Your task to perform on an android device: turn off priority inbox in the gmail app Image 0: 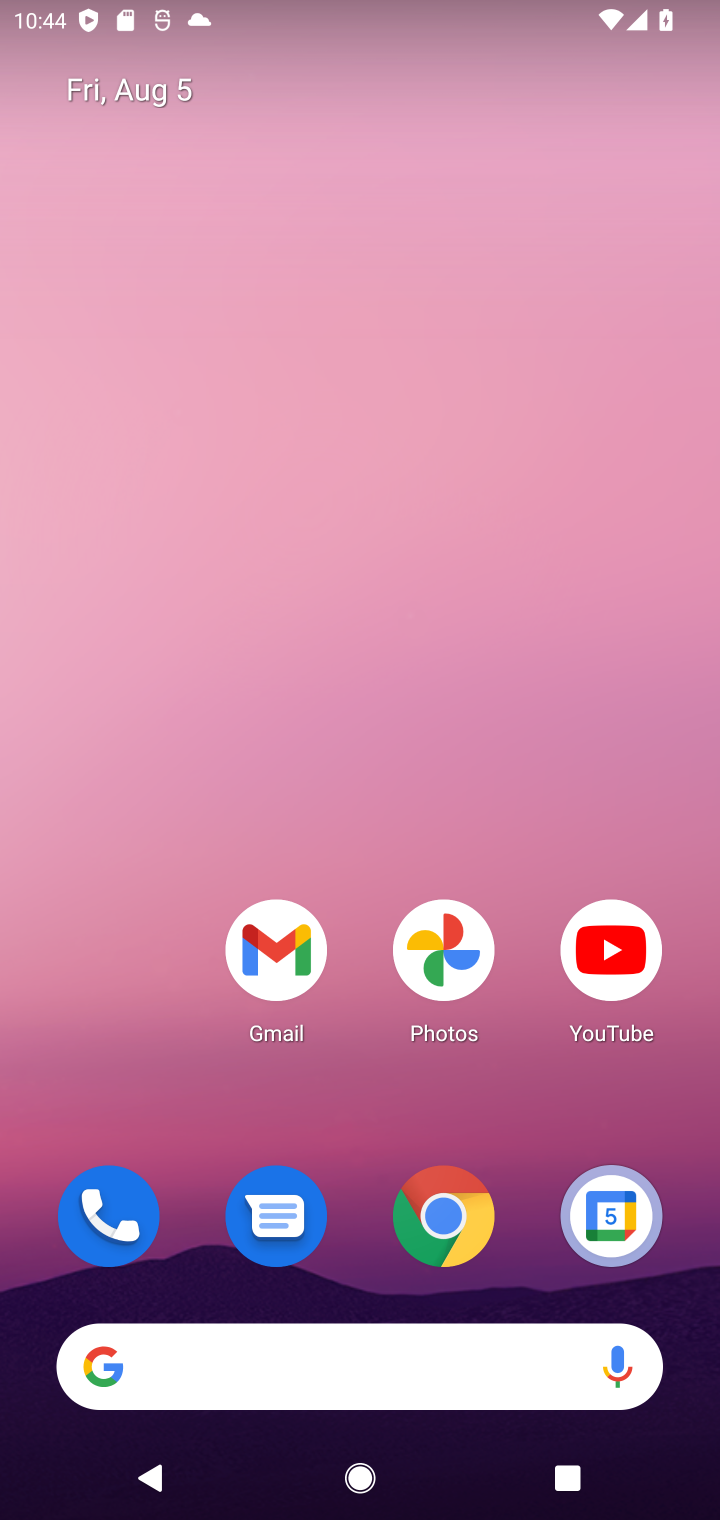
Step 0: drag from (464, 1356) to (456, 188)
Your task to perform on an android device: turn off priority inbox in the gmail app Image 1: 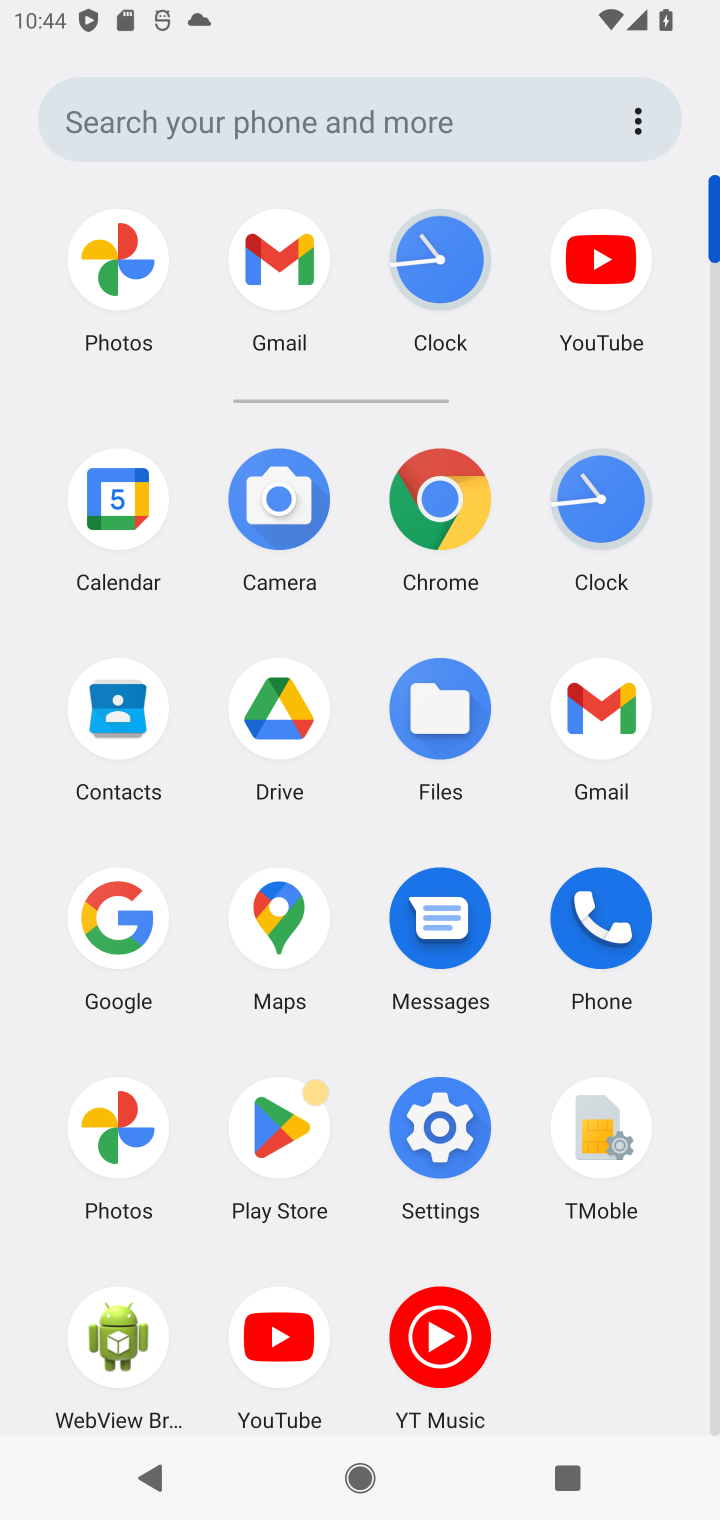
Step 1: click (624, 723)
Your task to perform on an android device: turn off priority inbox in the gmail app Image 2: 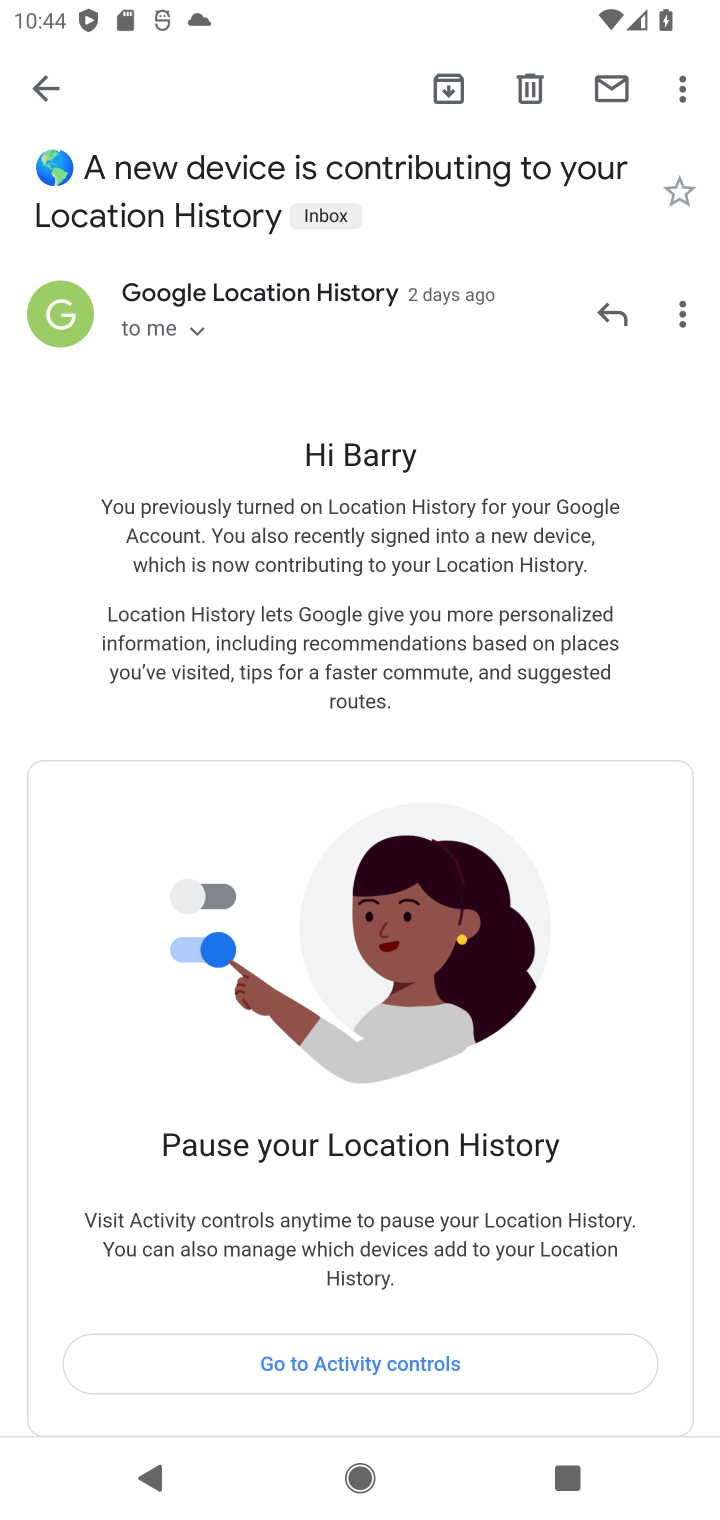
Step 2: press back button
Your task to perform on an android device: turn off priority inbox in the gmail app Image 3: 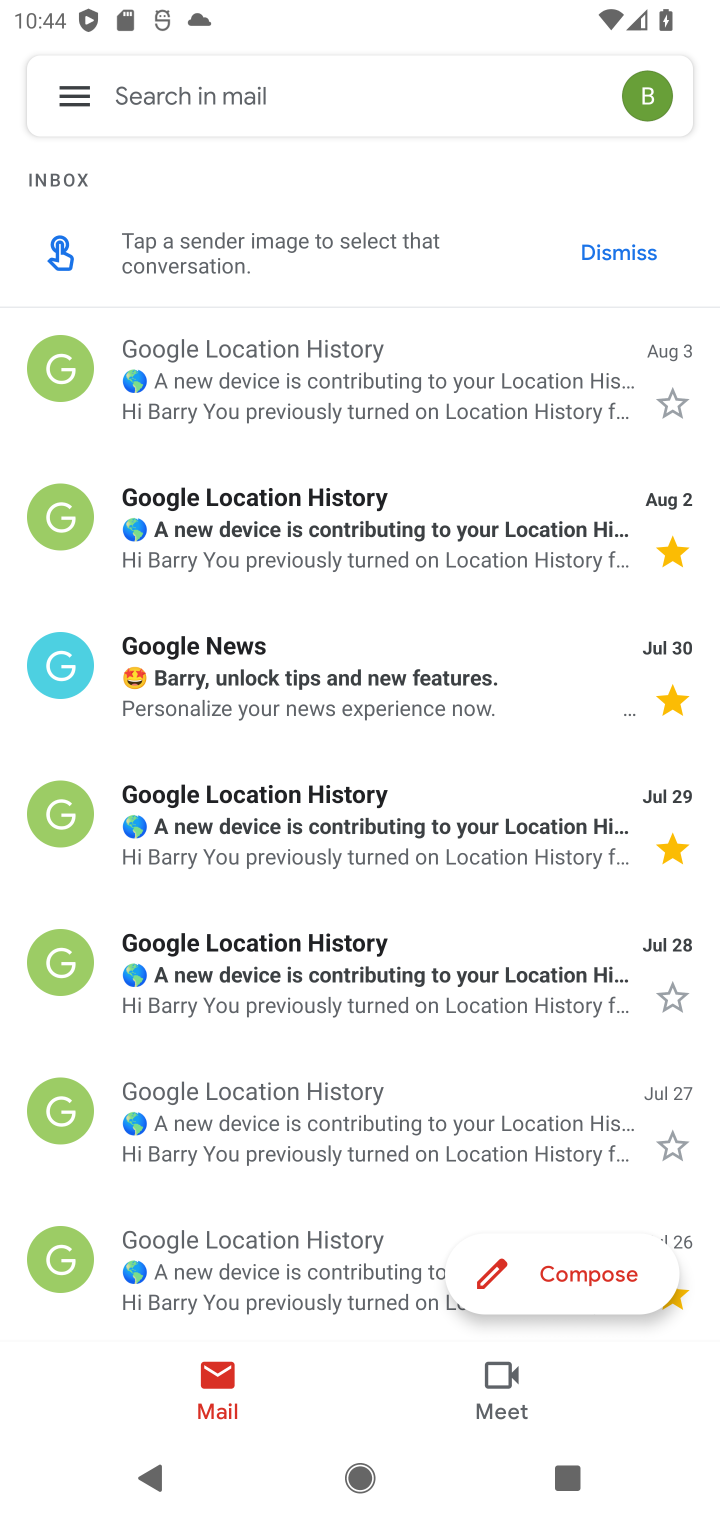
Step 3: click (75, 84)
Your task to perform on an android device: turn off priority inbox in the gmail app Image 4: 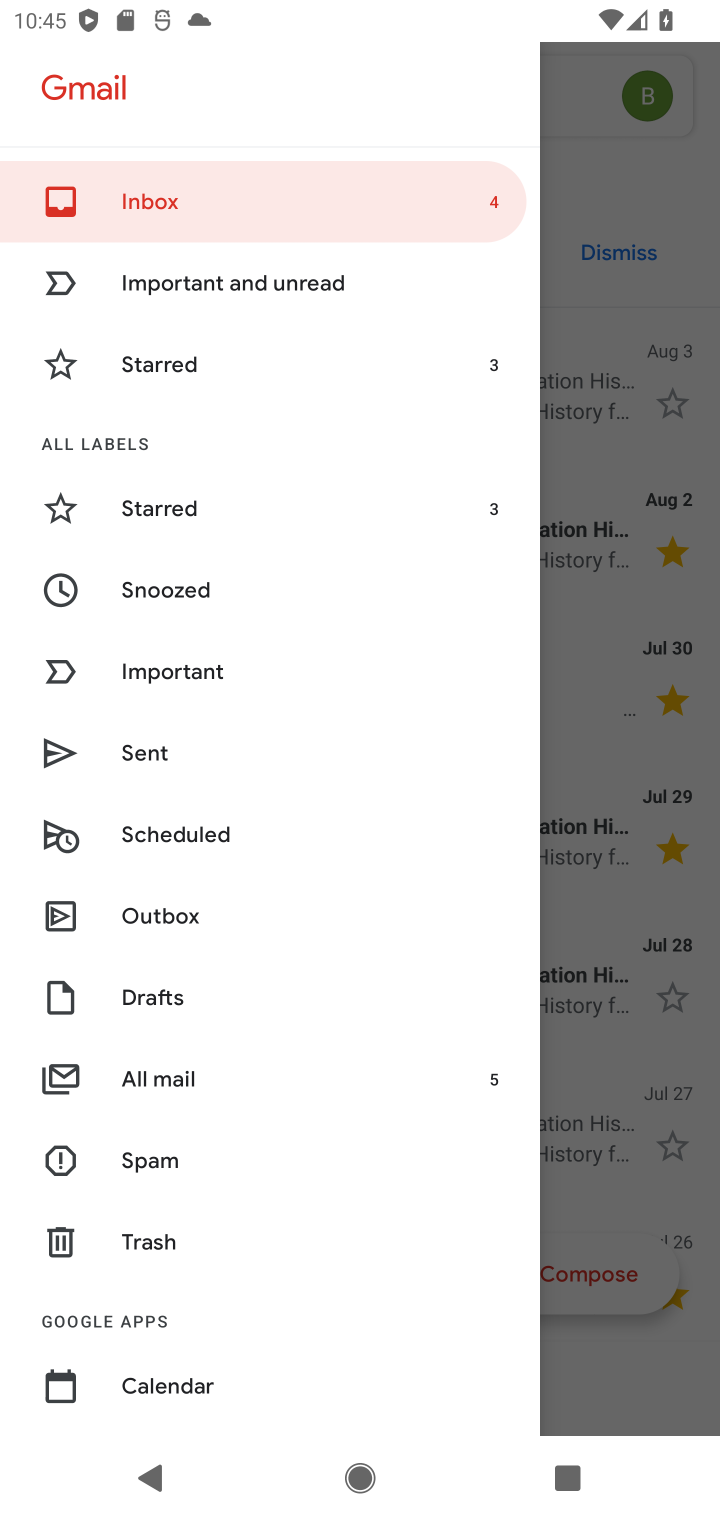
Step 4: drag from (264, 1337) to (246, 472)
Your task to perform on an android device: turn off priority inbox in the gmail app Image 5: 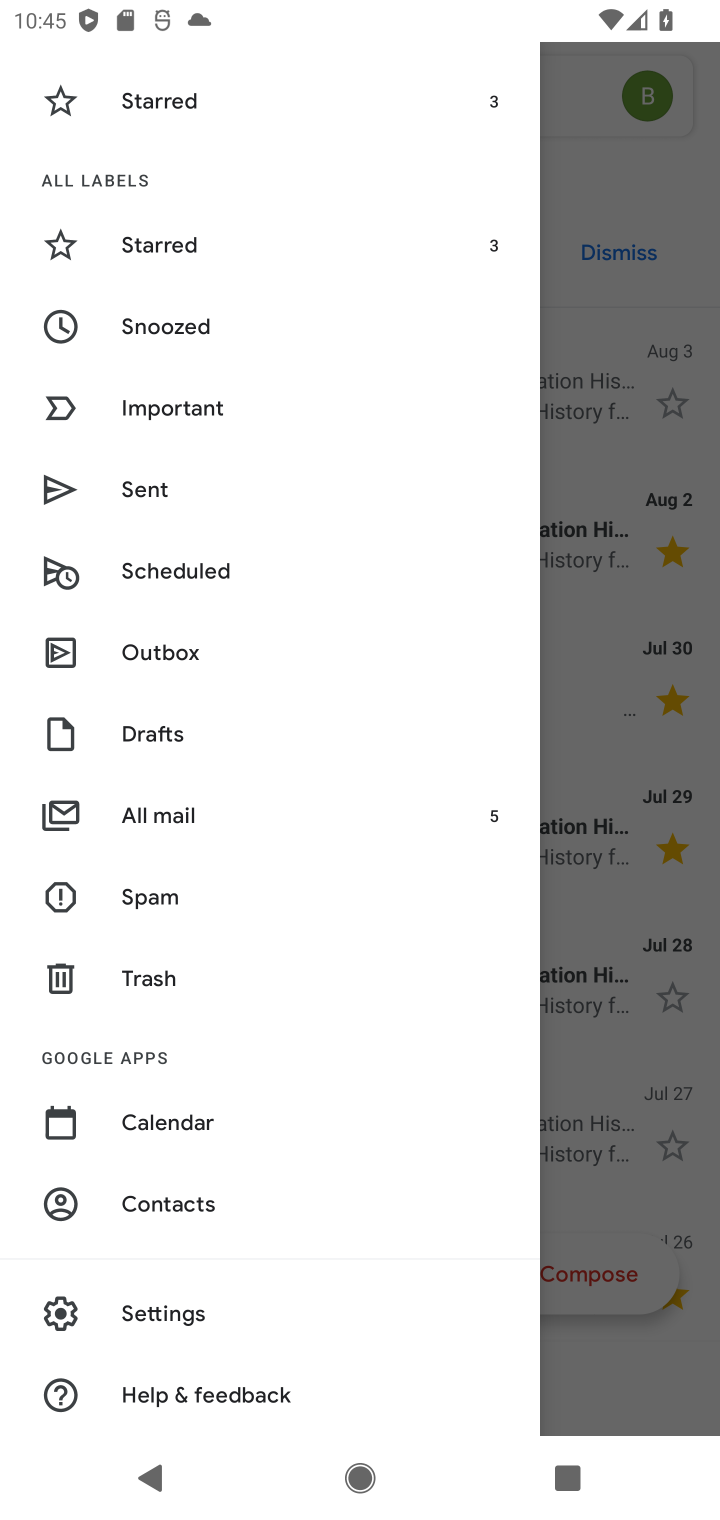
Step 5: click (178, 1305)
Your task to perform on an android device: turn off priority inbox in the gmail app Image 6: 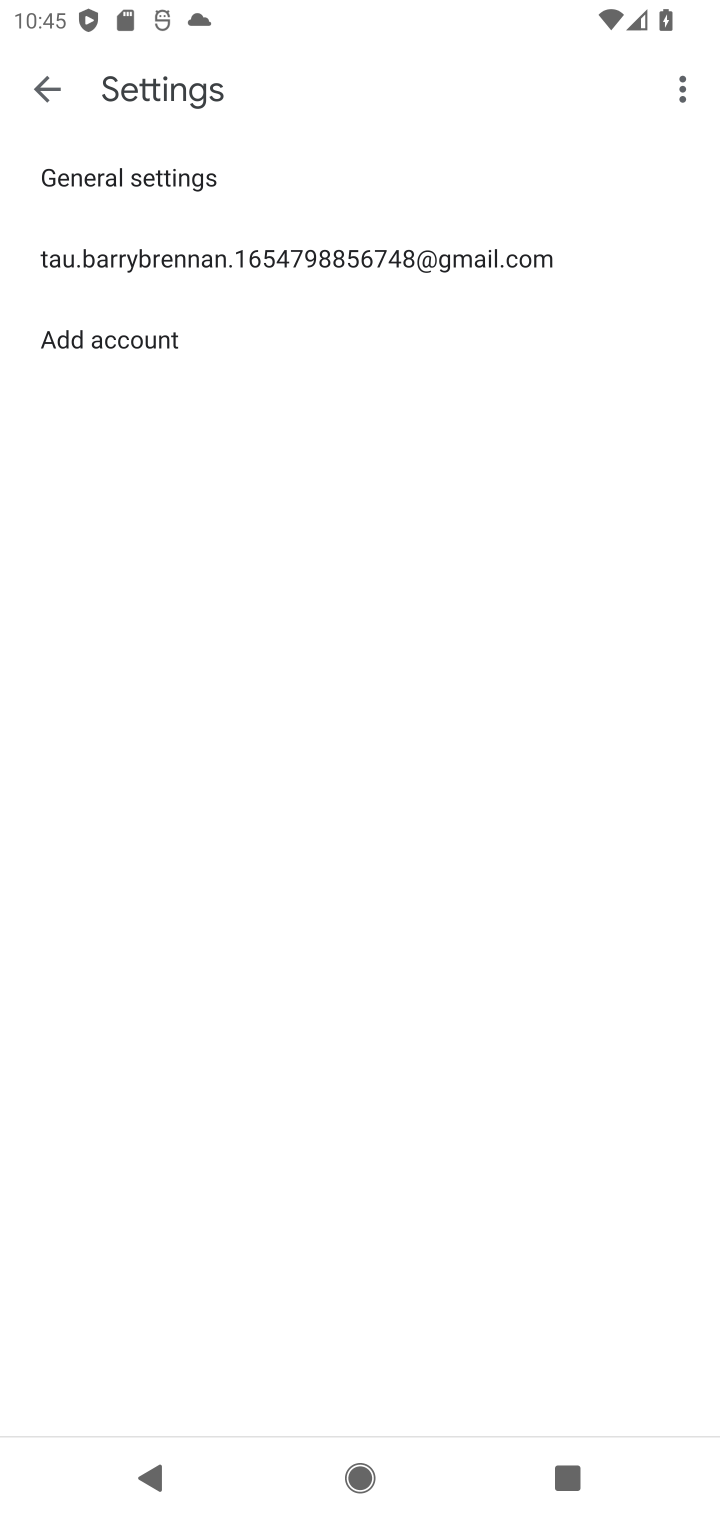
Step 6: click (284, 254)
Your task to perform on an android device: turn off priority inbox in the gmail app Image 7: 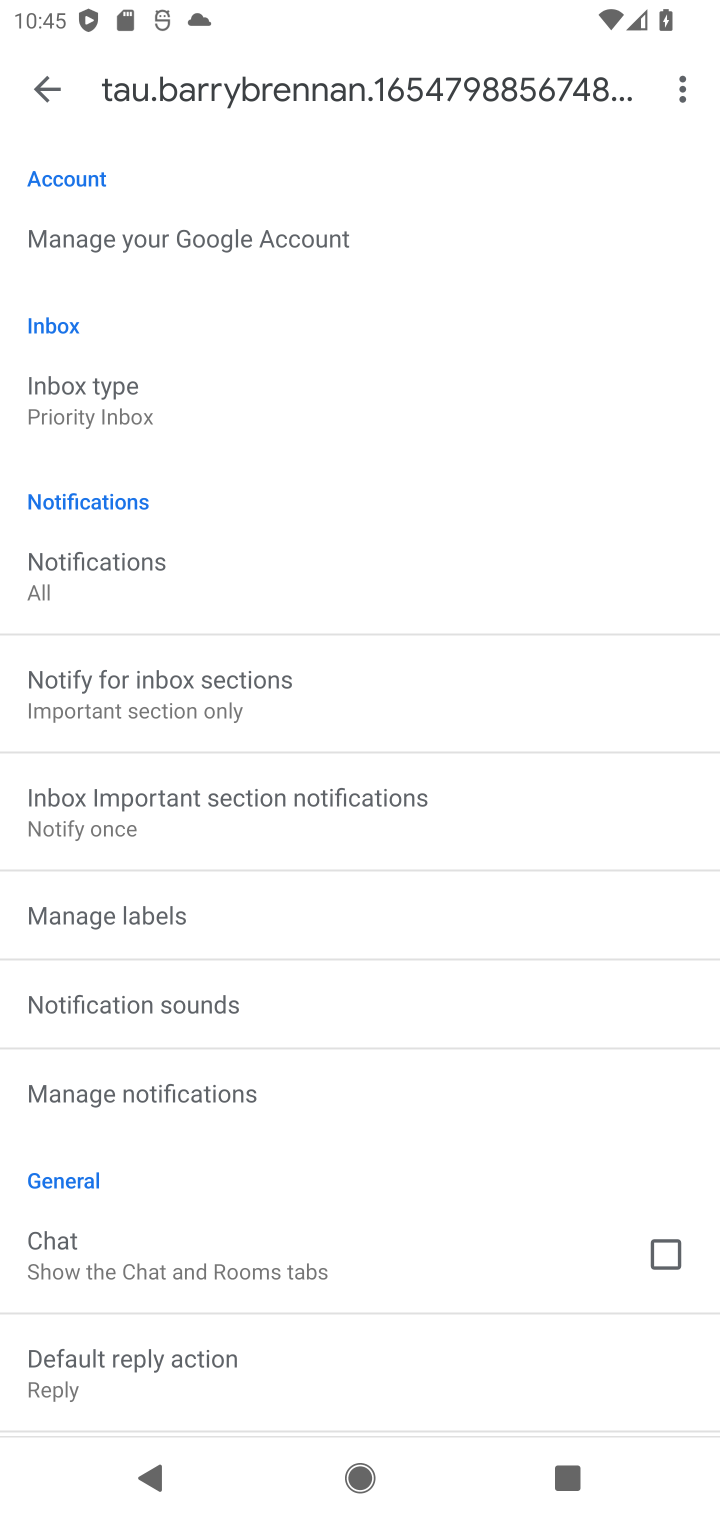
Step 7: click (127, 412)
Your task to perform on an android device: turn off priority inbox in the gmail app Image 8: 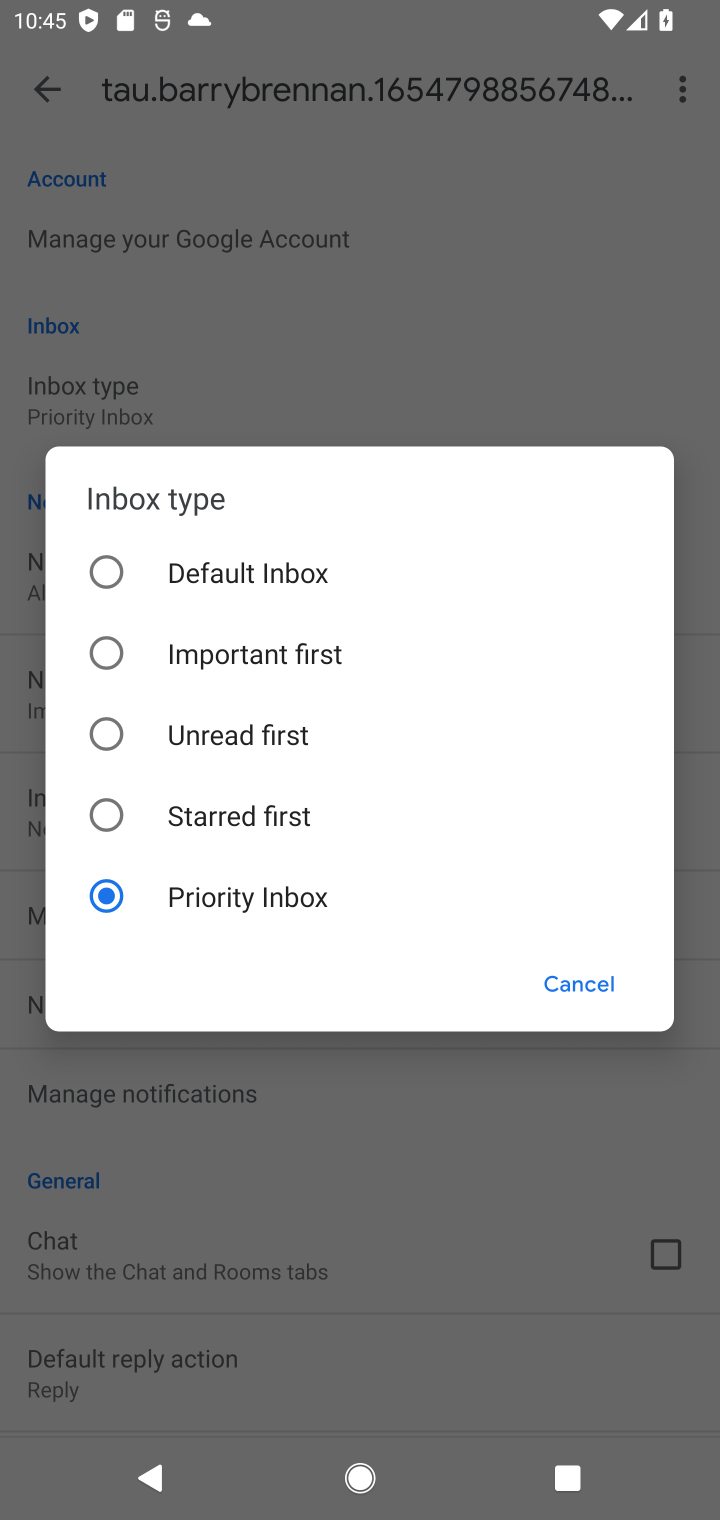
Step 8: click (106, 570)
Your task to perform on an android device: turn off priority inbox in the gmail app Image 9: 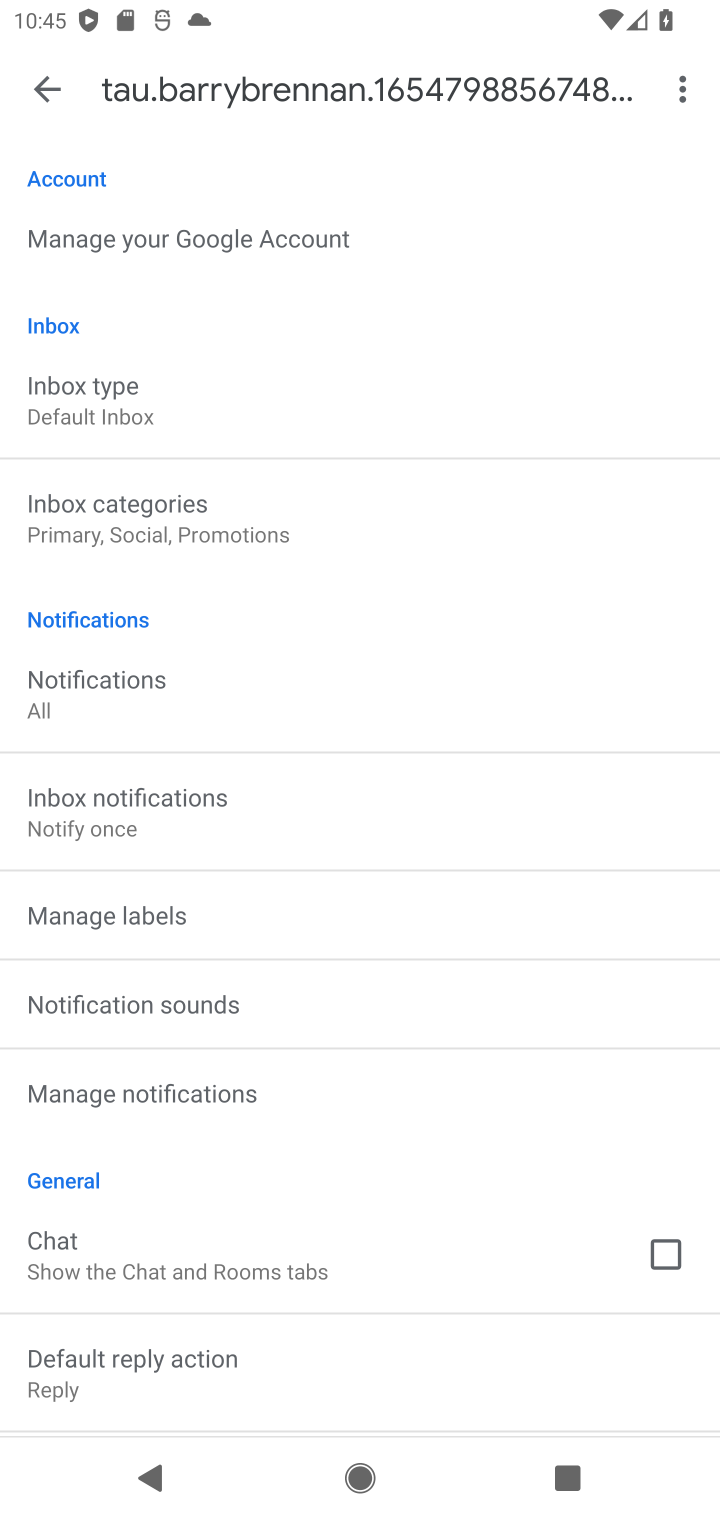
Step 9: task complete